Your task to perform on an android device: Go to battery settings Image 0: 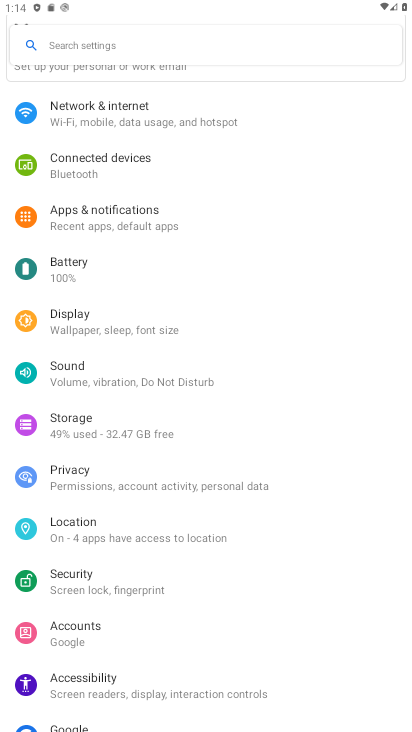
Step 0: click (184, 266)
Your task to perform on an android device: Go to battery settings Image 1: 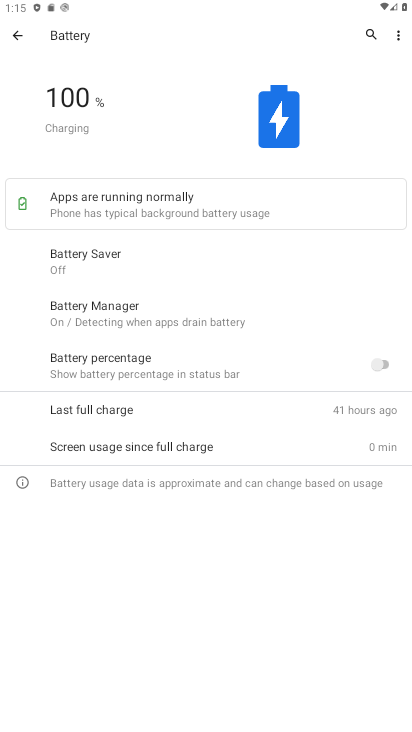
Step 1: task complete